Your task to perform on an android device: turn pop-ups on in chrome Image 0: 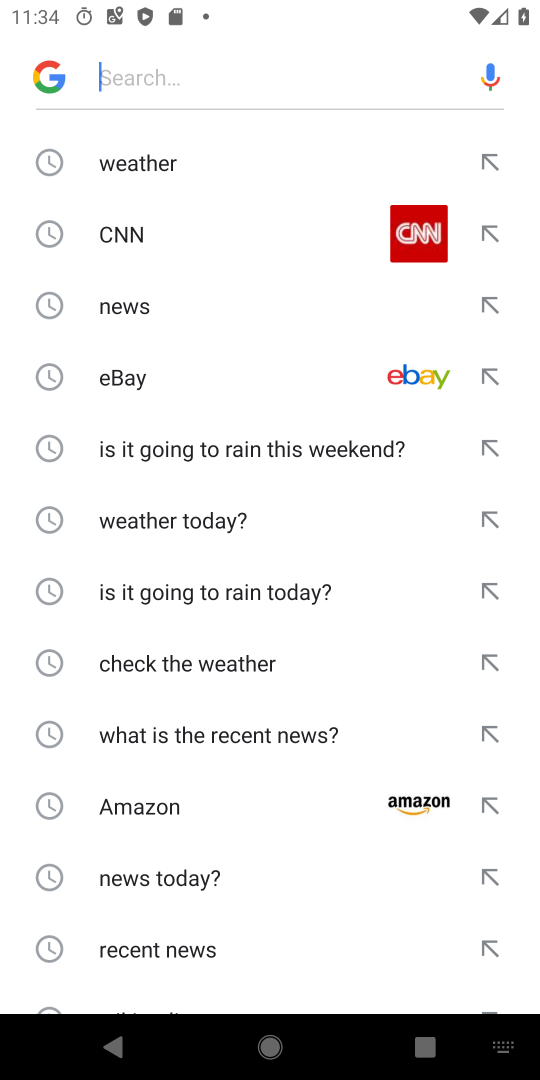
Step 0: press home button
Your task to perform on an android device: turn pop-ups on in chrome Image 1: 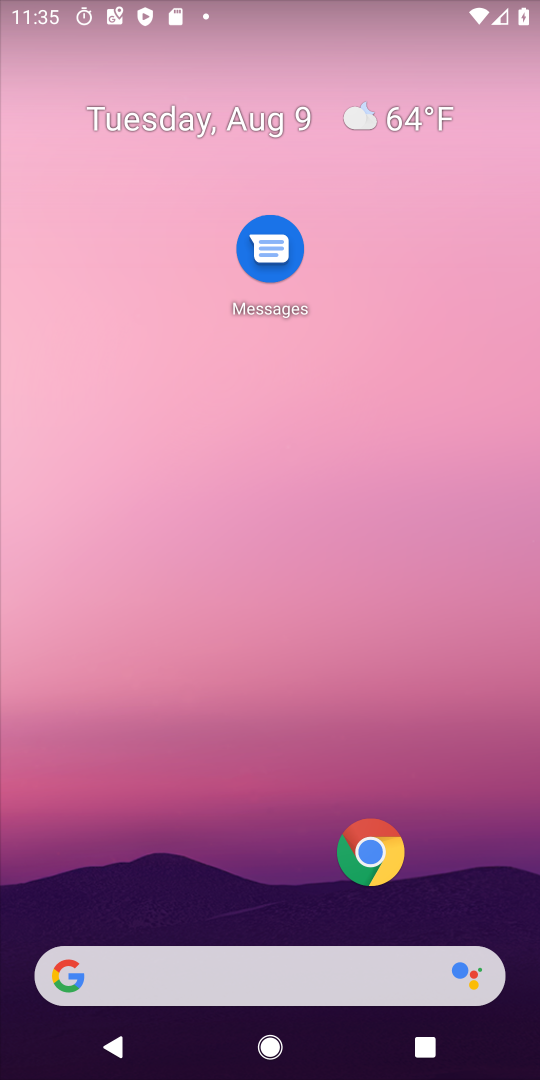
Step 1: click (385, 842)
Your task to perform on an android device: turn pop-ups on in chrome Image 2: 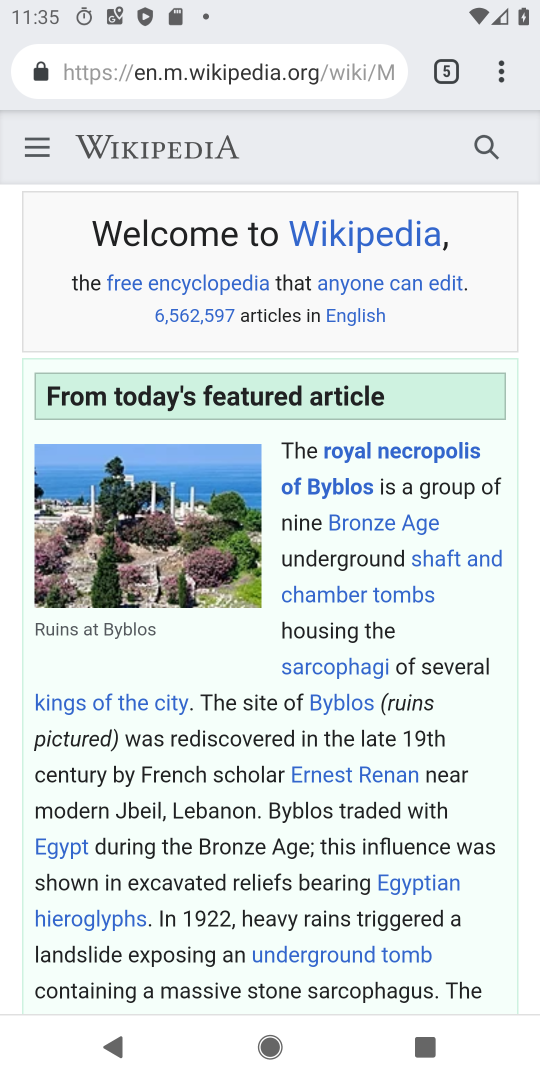
Step 2: click (510, 47)
Your task to perform on an android device: turn pop-ups on in chrome Image 3: 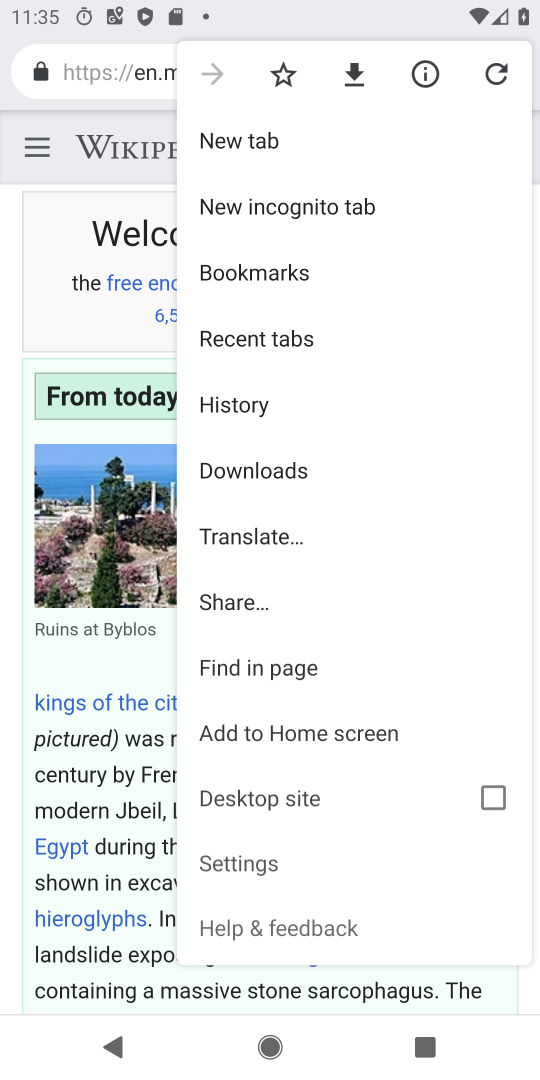
Step 3: click (510, 47)
Your task to perform on an android device: turn pop-ups on in chrome Image 4: 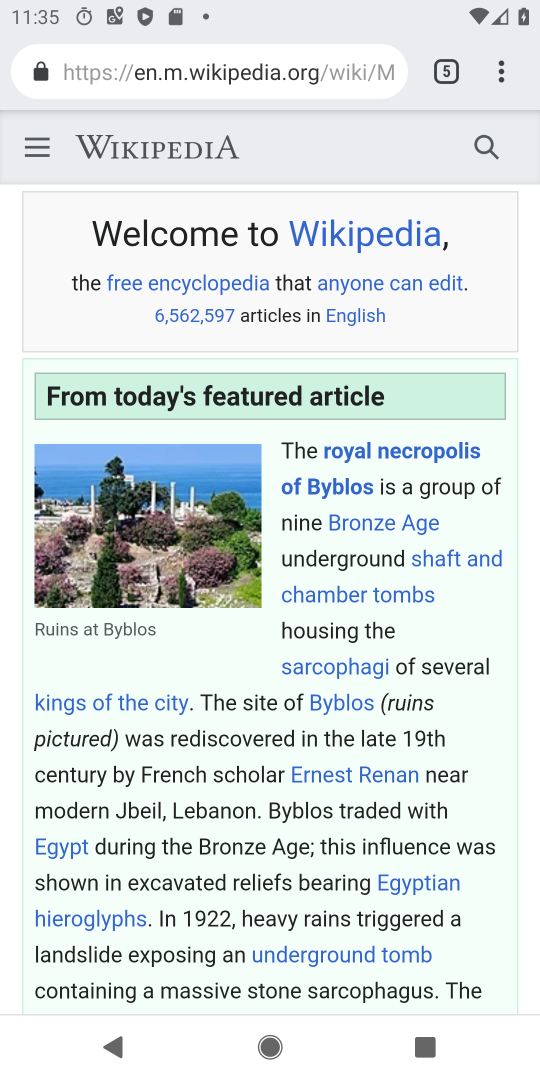
Step 4: click (490, 70)
Your task to perform on an android device: turn pop-ups on in chrome Image 5: 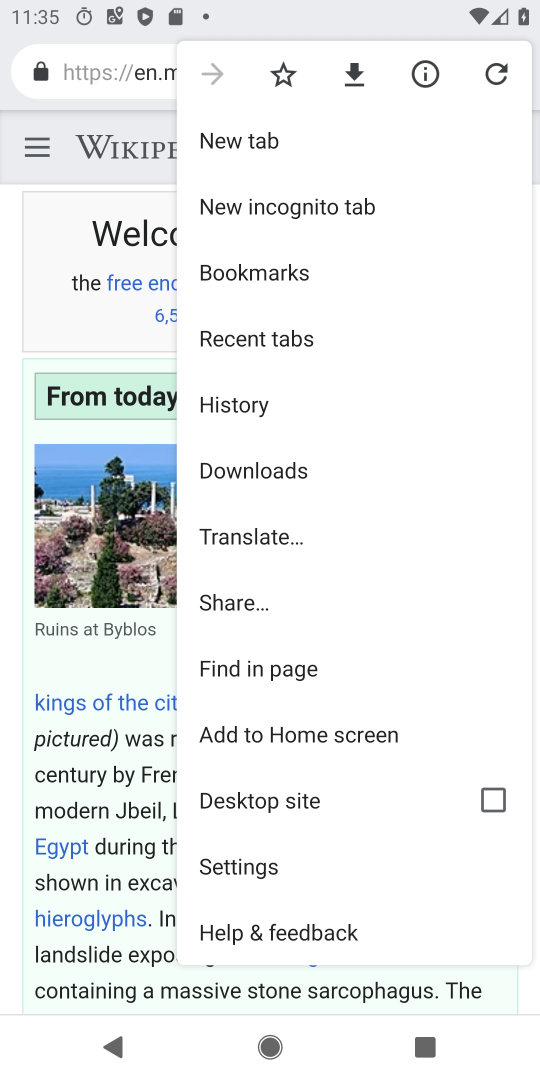
Step 5: click (227, 850)
Your task to perform on an android device: turn pop-ups on in chrome Image 6: 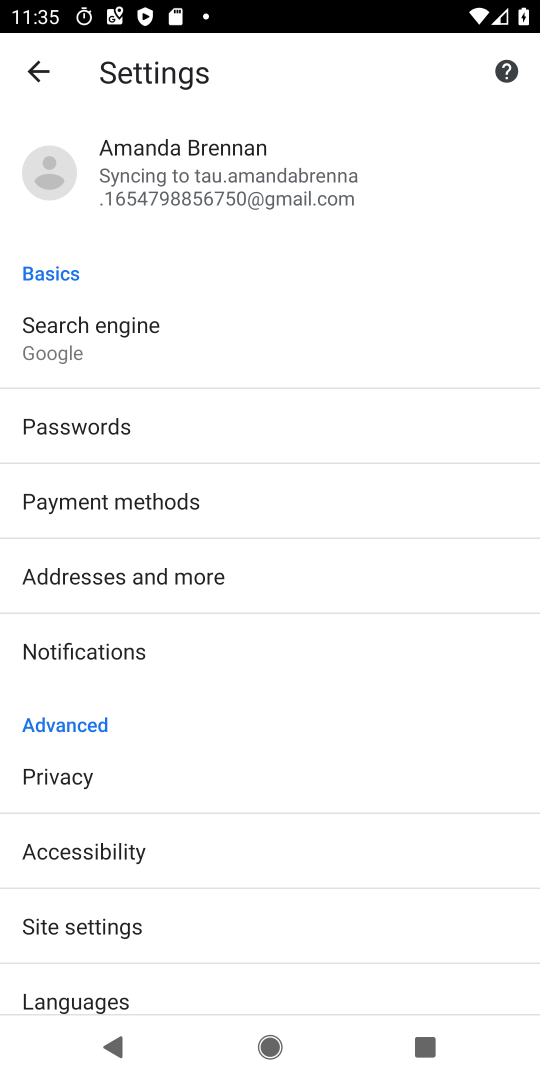
Step 6: click (93, 923)
Your task to perform on an android device: turn pop-ups on in chrome Image 7: 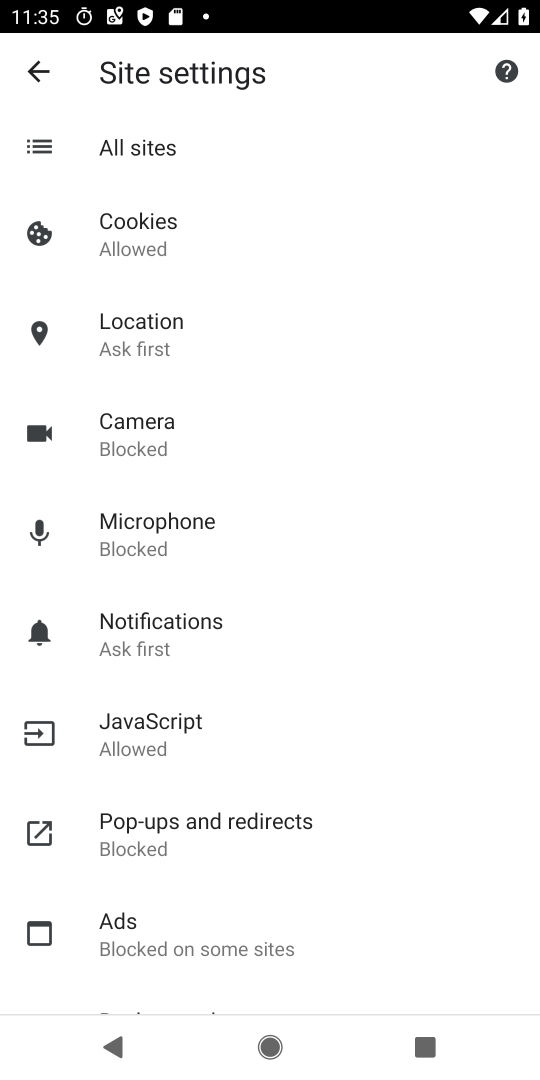
Step 7: click (242, 857)
Your task to perform on an android device: turn pop-ups on in chrome Image 8: 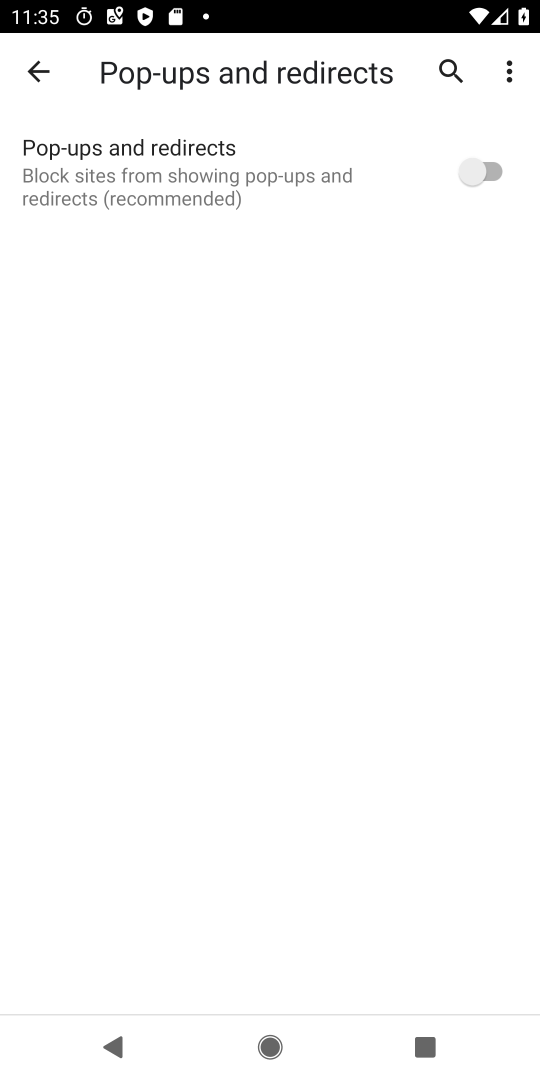
Step 8: click (496, 180)
Your task to perform on an android device: turn pop-ups on in chrome Image 9: 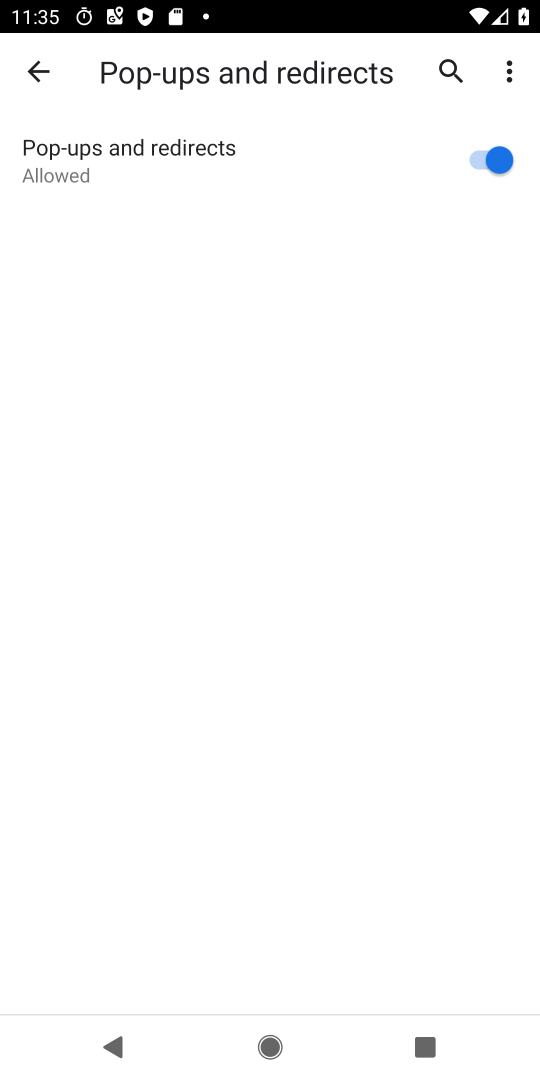
Step 9: task complete